Your task to perform on an android device: Go to network settings Image 0: 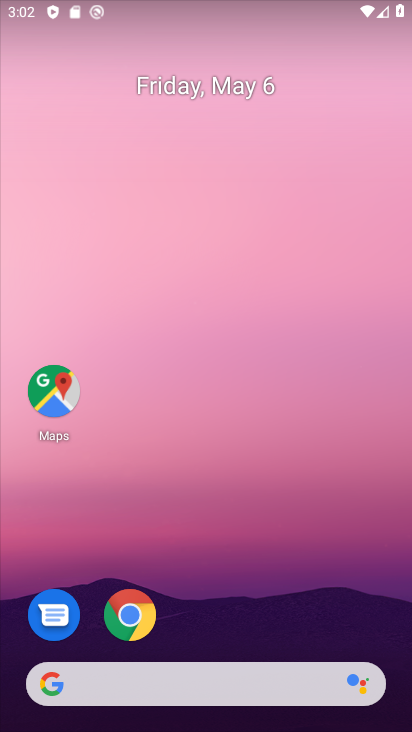
Step 0: drag from (312, 640) to (305, 33)
Your task to perform on an android device: Go to network settings Image 1: 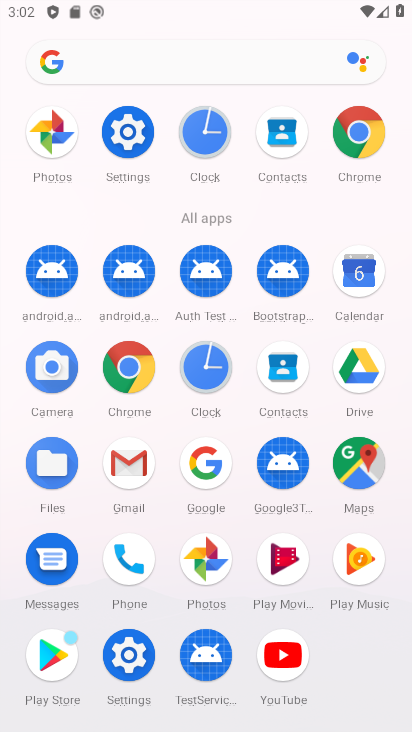
Step 1: click (130, 145)
Your task to perform on an android device: Go to network settings Image 2: 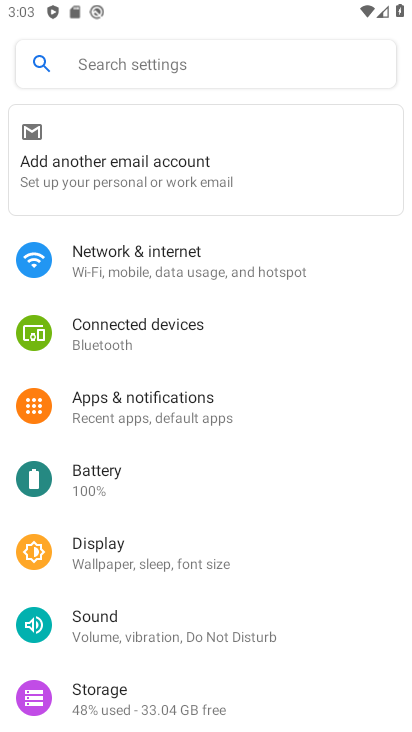
Step 2: click (144, 266)
Your task to perform on an android device: Go to network settings Image 3: 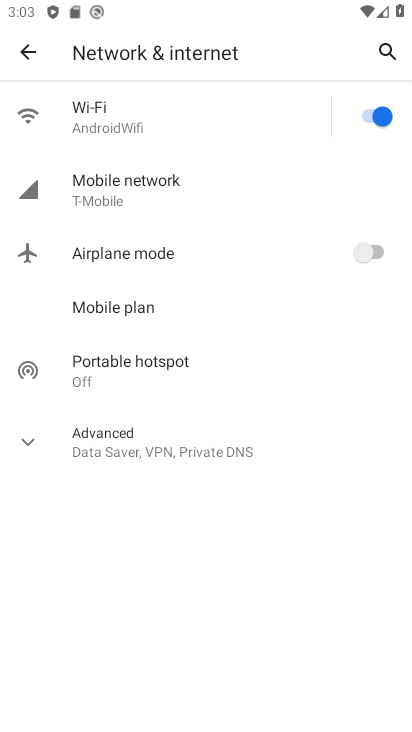
Step 3: click (35, 445)
Your task to perform on an android device: Go to network settings Image 4: 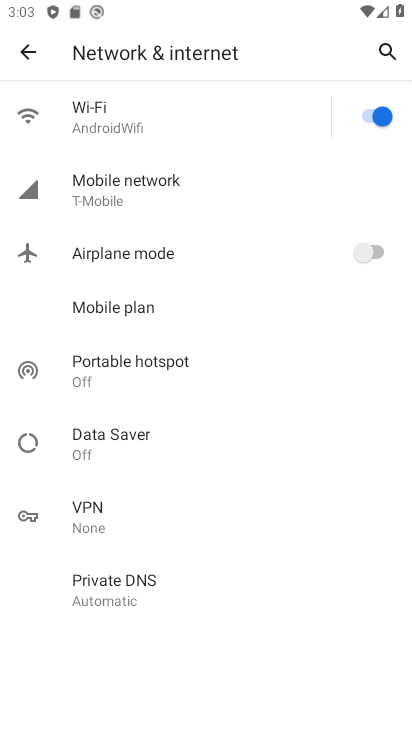
Step 4: drag from (208, 564) to (191, 316)
Your task to perform on an android device: Go to network settings Image 5: 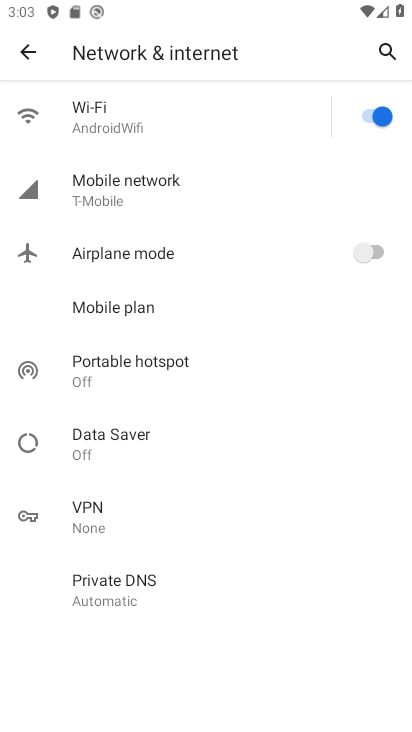
Step 5: click (96, 206)
Your task to perform on an android device: Go to network settings Image 6: 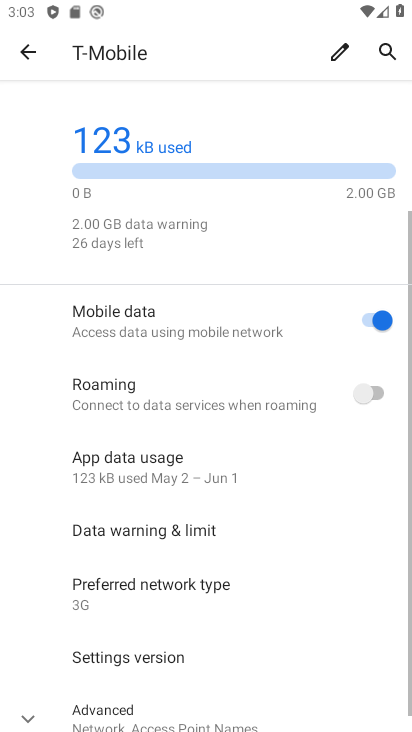
Step 6: drag from (204, 549) to (184, 241)
Your task to perform on an android device: Go to network settings Image 7: 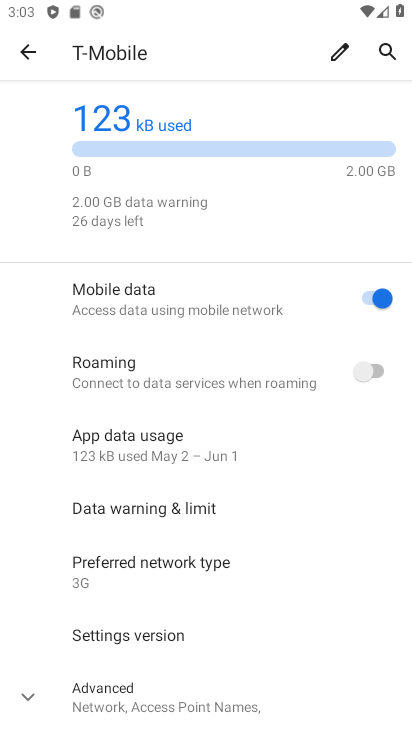
Step 7: click (33, 696)
Your task to perform on an android device: Go to network settings Image 8: 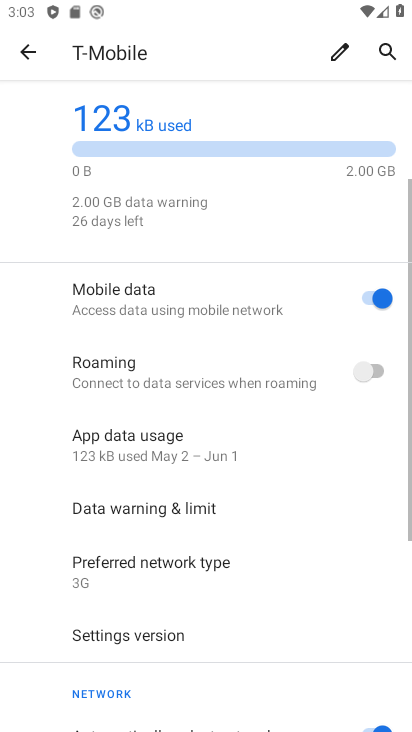
Step 8: task complete